Your task to perform on an android device: What is the news today? Image 0: 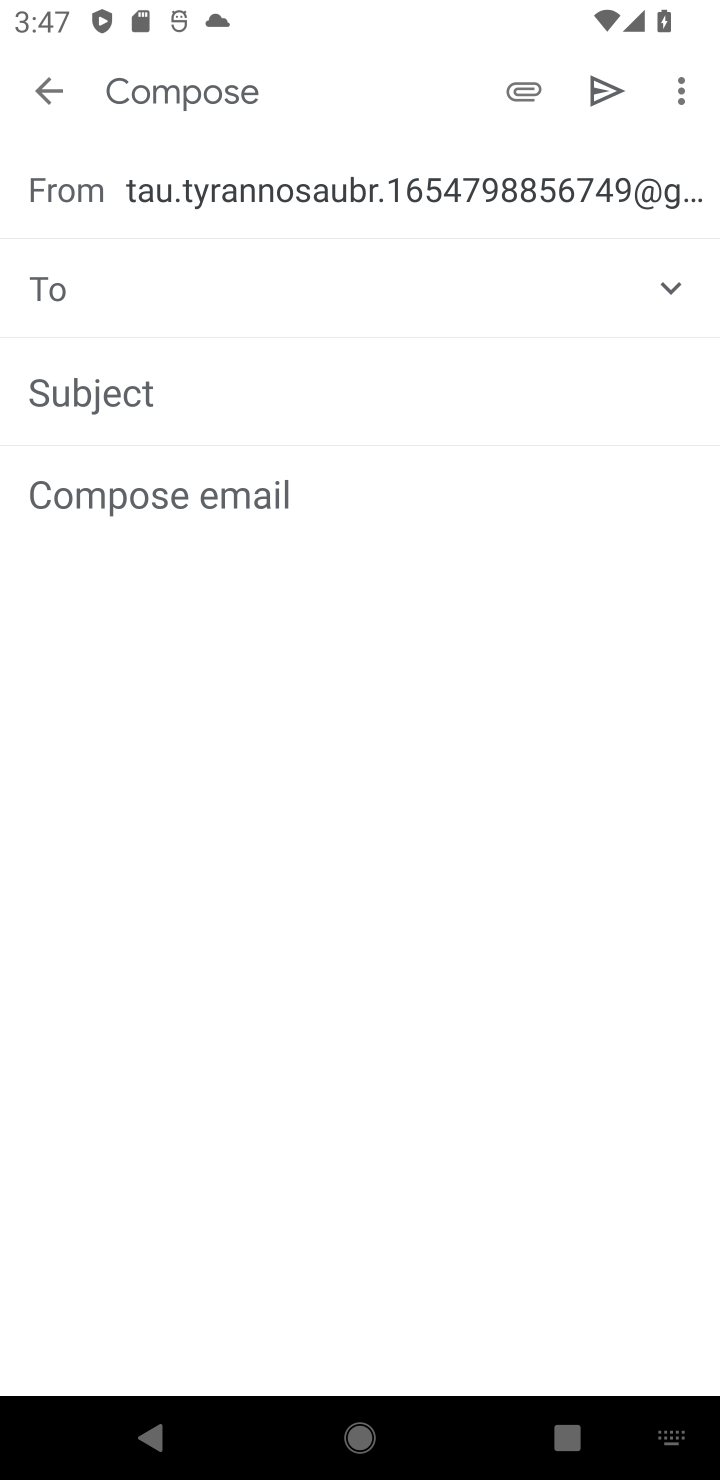
Step 0: press home button
Your task to perform on an android device: What is the news today? Image 1: 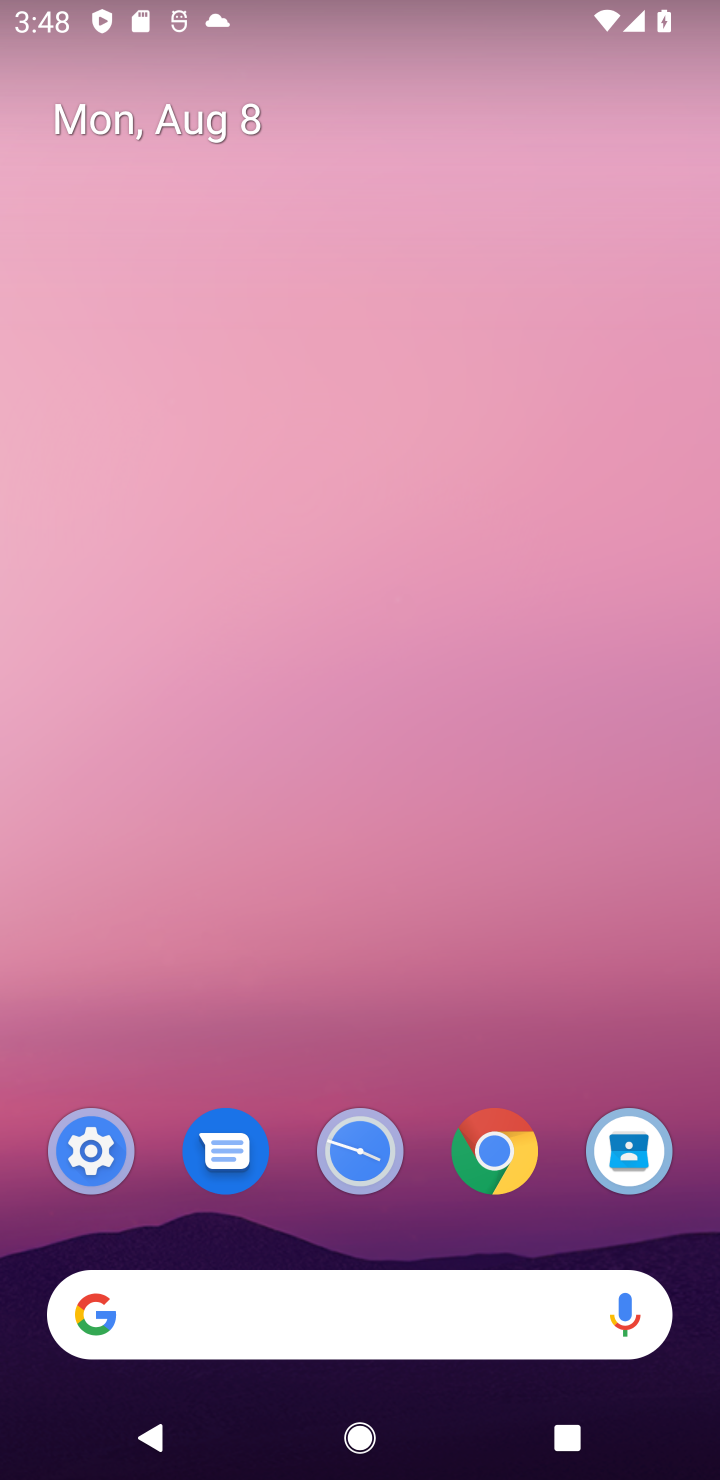
Step 1: drag from (302, 1009) to (187, 189)
Your task to perform on an android device: What is the news today? Image 2: 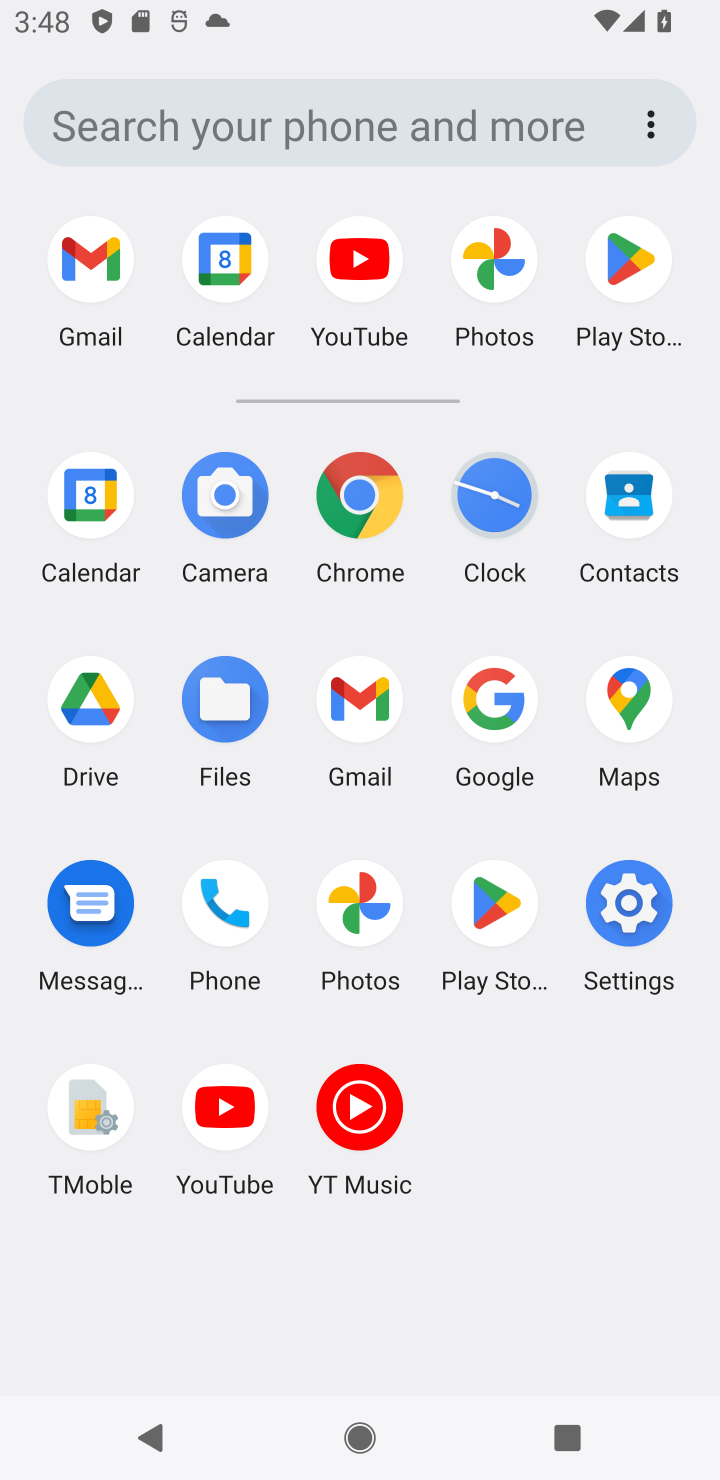
Step 2: click (488, 728)
Your task to perform on an android device: What is the news today? Image 3: 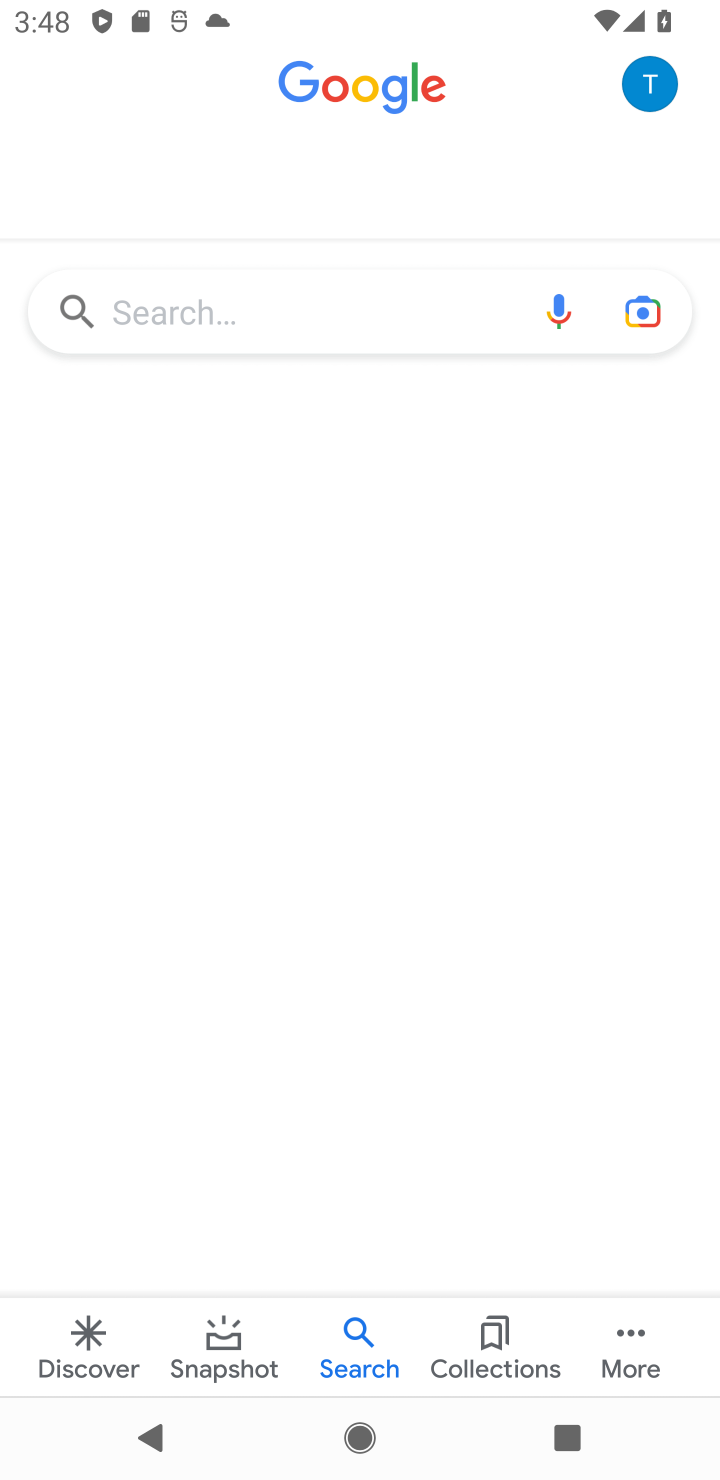
Step 3: click (213, 332)
Your task to perform on an android device: What is the news today? Image 4: 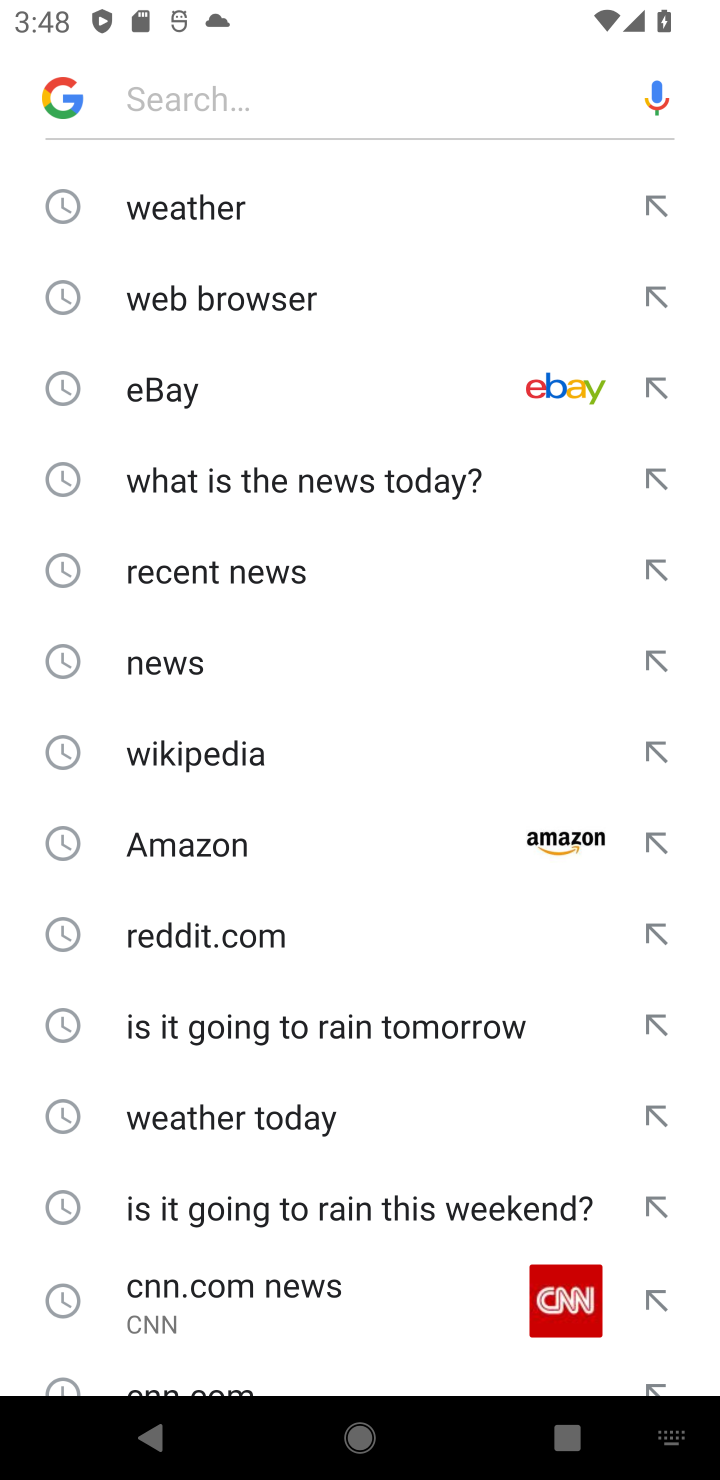
Step 4: click (203, 651)
Your task to perform on an android device: What is the news today? Image 5: 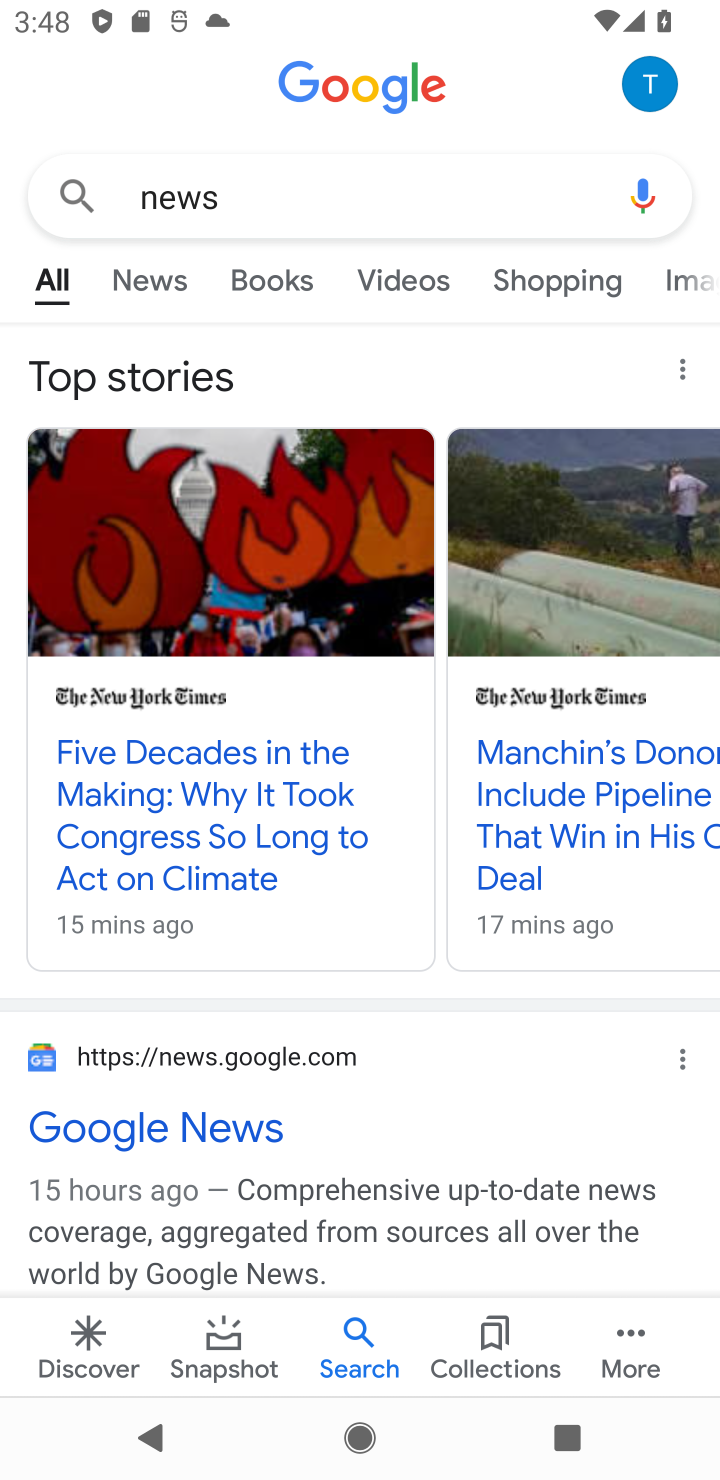
Step 5: click (164, 272)
Your task to perform on an android device: What is the news today? Image 6: 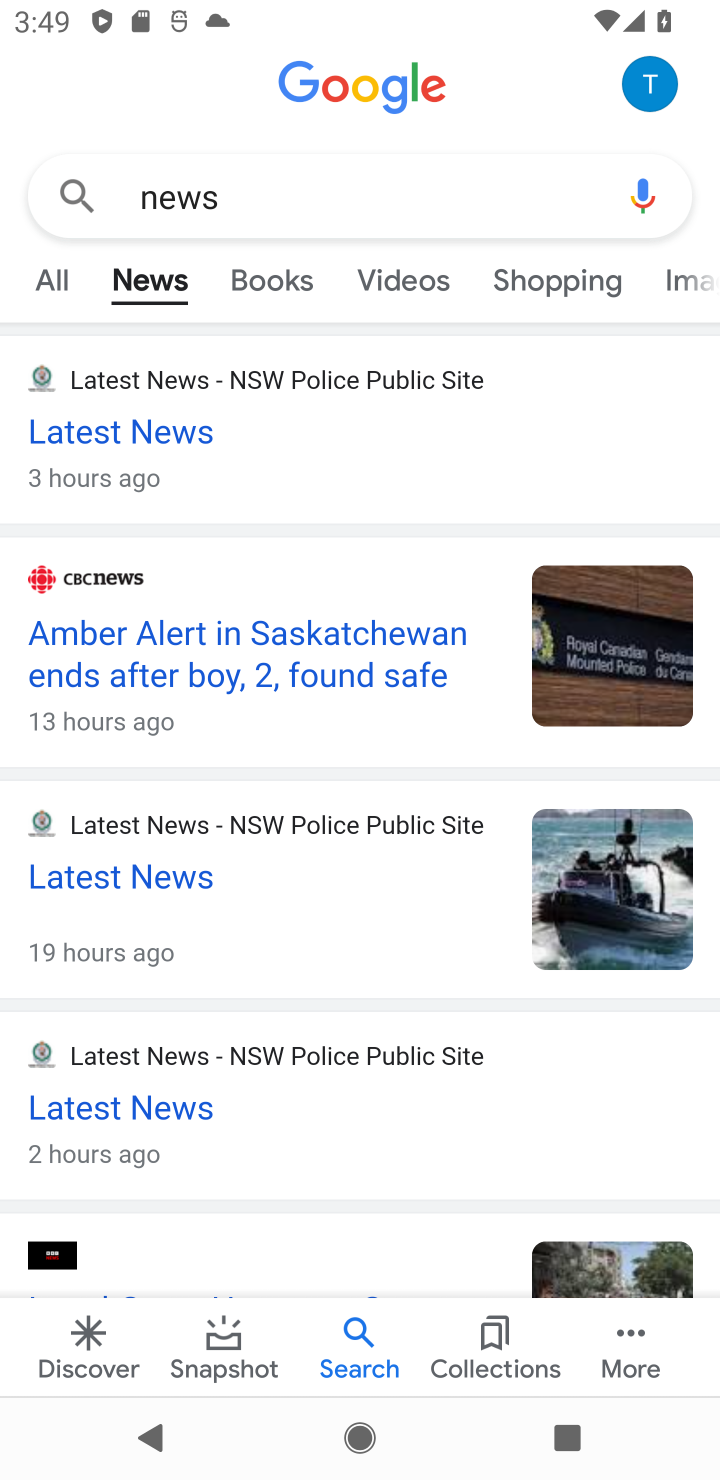
Step 6: task complete